Your task to perform on an android device: Go to display settings Image 0: 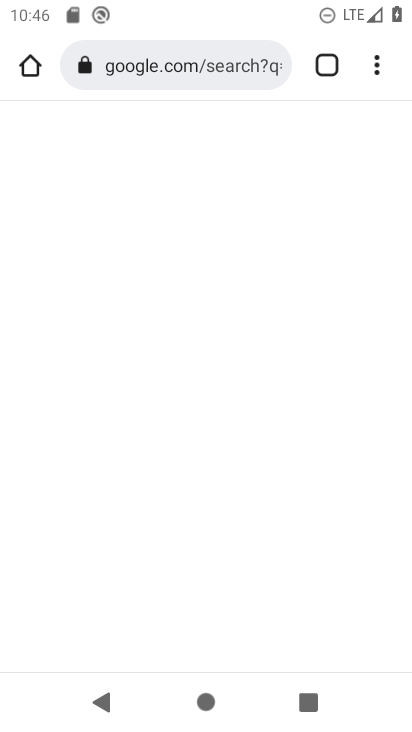
Step 0: press home button
Your task to perform on an android device: Go to display settings Image 1: 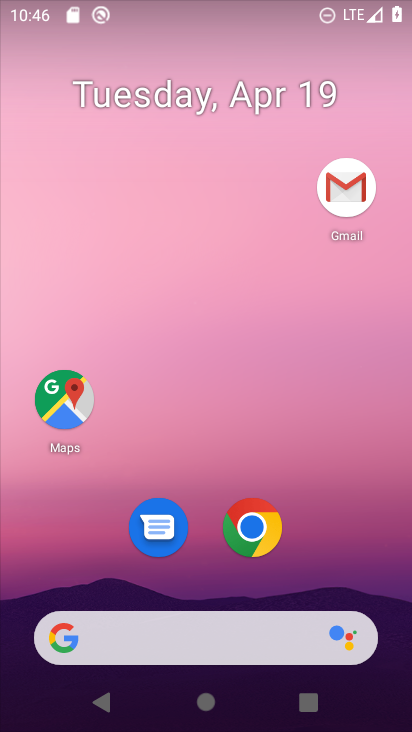
Step 1: drag from (364, 515) to (365, 128)
Your task to perform on an android device: Go to display settings Image 2: 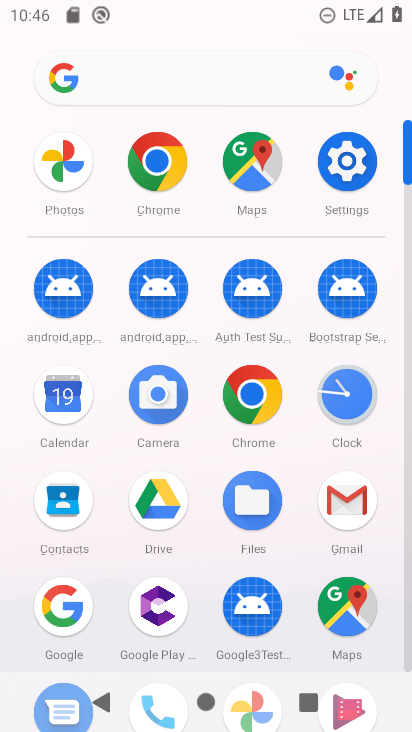
Step 2: click (327, 184)
Your task to perform on an android device: Go to display settings Image 3: 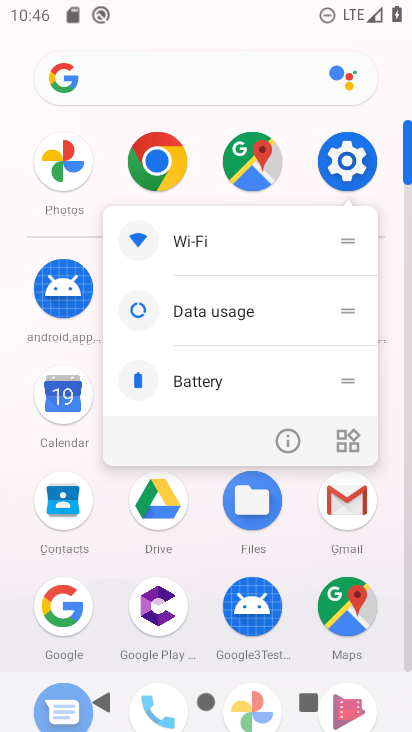
Step 3: click (328, 183)
Your task to perform on an android device: Go to display settings Image 4: 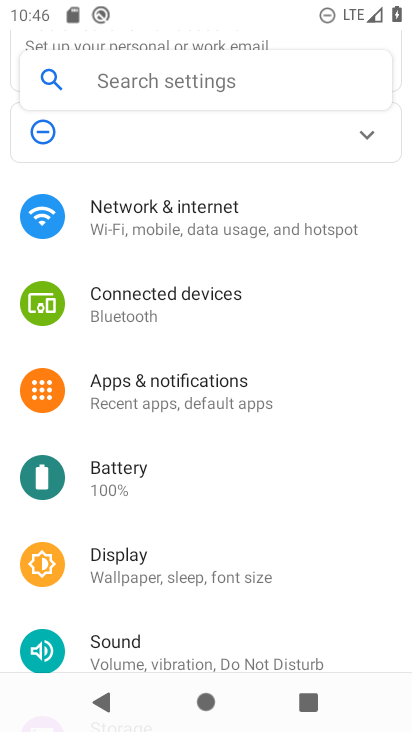
Step 4: click (153, 568)
Your task to perform on an android device: Go to display settings Image 5: 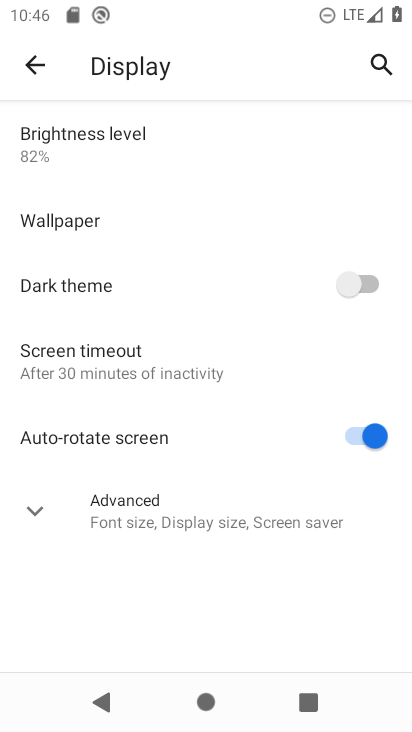
Step 5: task complete